Your task to perform on an android device: Search for pizza restaurants on Maps Image 0: 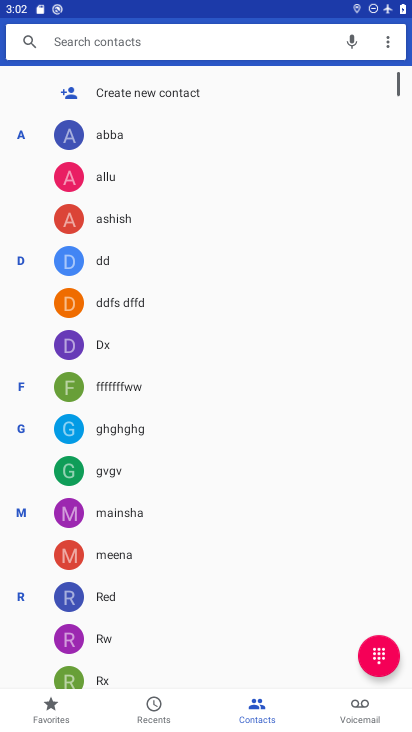
Step 0: press home button
Your task to perform on an android device: Search for pizza restaurants on Maps Image 1: 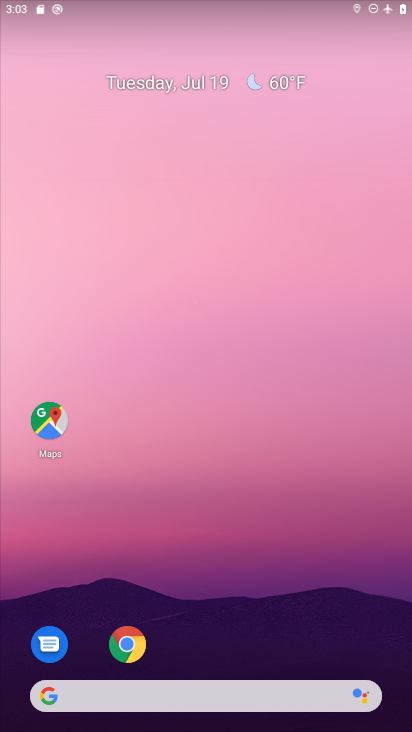
Step 1: click (40, 421)
Your task to perform on an android device: Search for pizza restaurants on Maps Image 2: 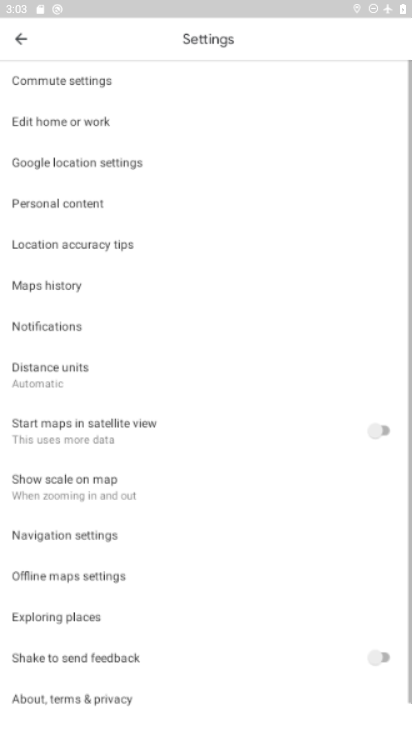
Step 2: task complete